Your task to perform on an android device: toggle data saver in the chrome app Image 0: 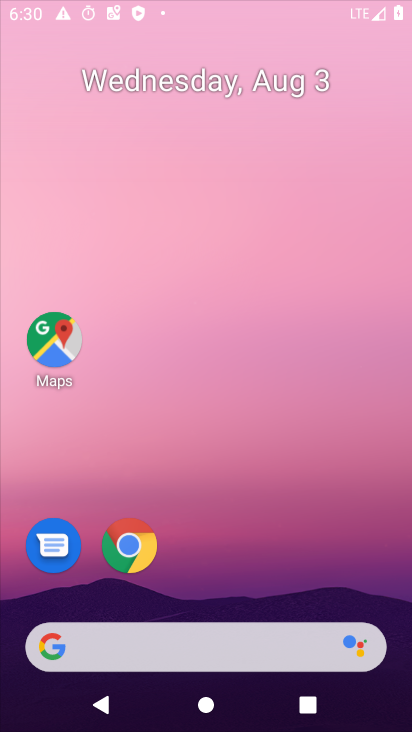
Step 0: press home button
Your task to perform on an android device: toggle data saver in the chrome app Image 1: 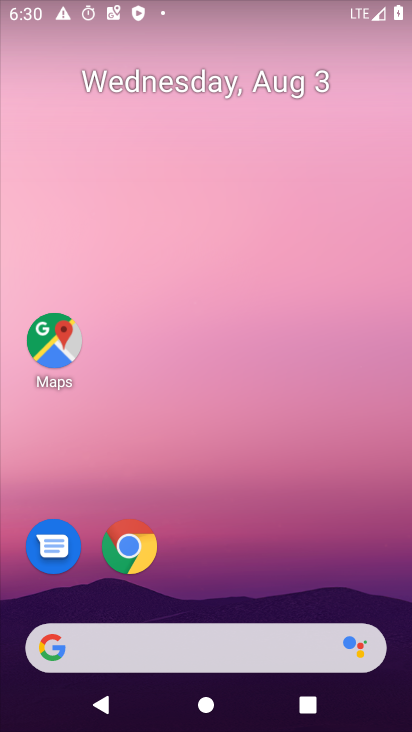
Step 1: click (132, 543)
Your task to perform on an android device: toggle data saver in the chrome app Image 2: 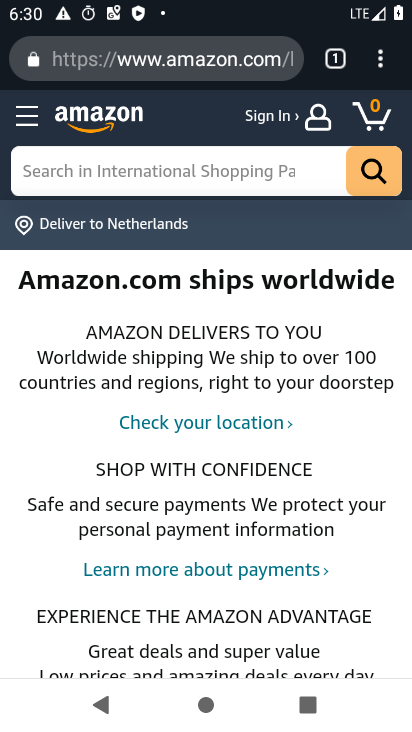
Step 2: drag from (385, 59) to (239, 570)
Your task to perform on an android device: toggle data saver in the chrome app Image 3: 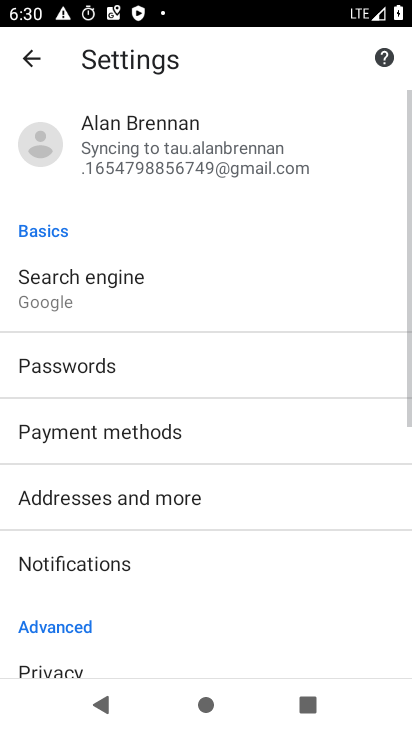
Step 3: drag from (308, 598) to (367, 237)
Your task to perform on an android device: toggle data saver in the chrome app Image 4: 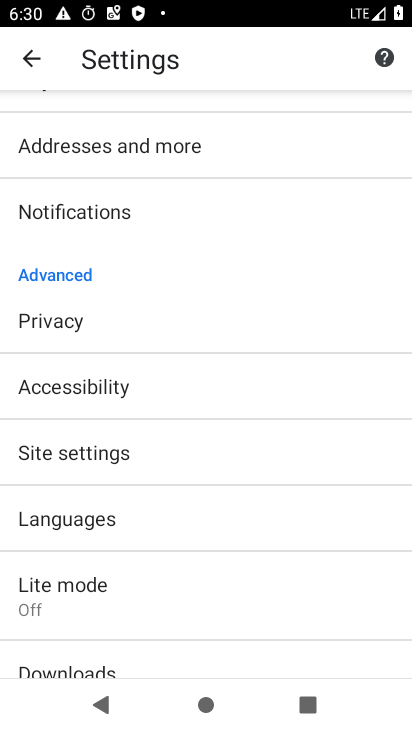
Step 4: click (73, 597)
Your task to perform on an android device: toggle data saver in the chrome app Image 5: 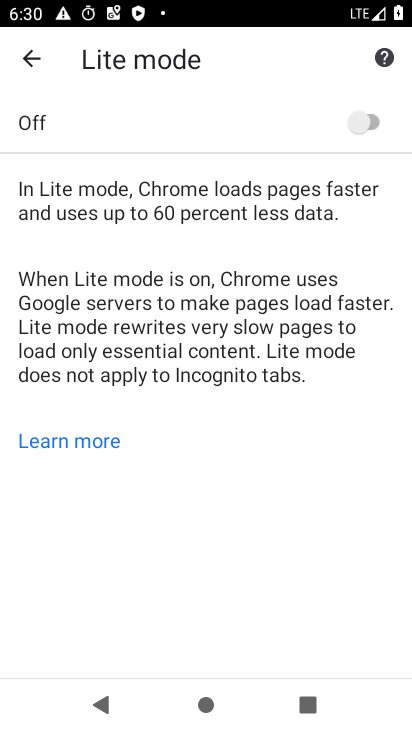
Step 5: click (362, 121)
Your task to perform on an android device: toggle data saver in the chrome app Image 6: 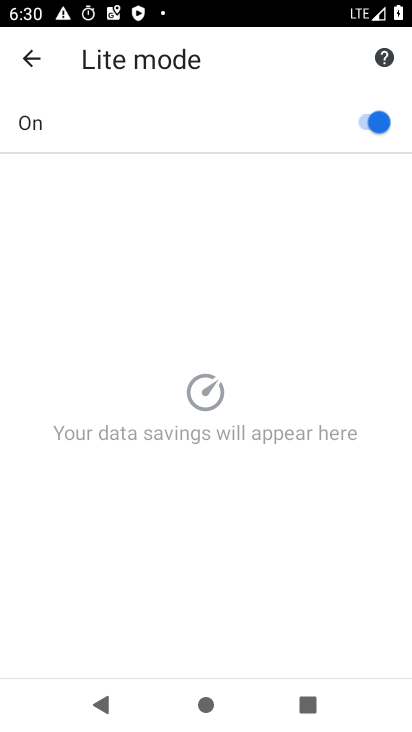
Step 6: task complete